Your task to perform on an android device: toggle airplane mode Image 0: 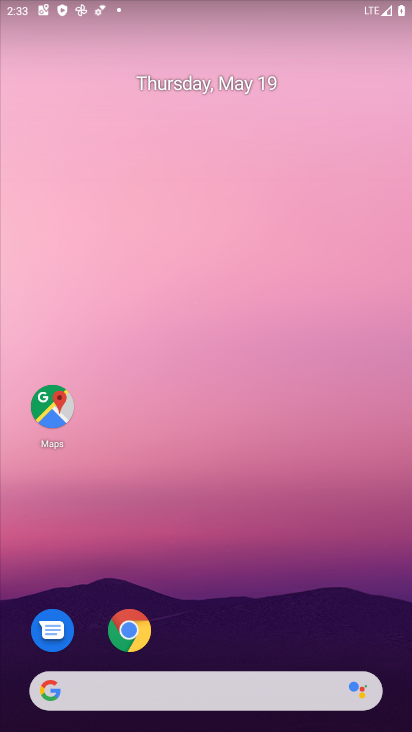
Step 0: drag from (376, 585) to (314, 87)
Your task to perform on an android device: toggle airplane mode Image 1: 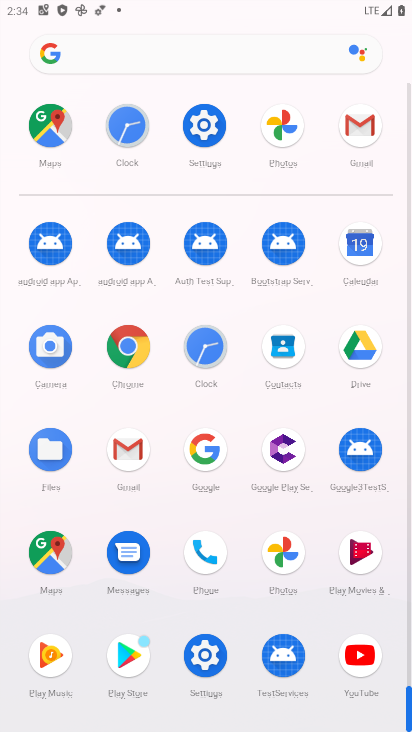
Step 1: click (205, 653)
Your task to perform on an android device: toggle airplane mode Image 2: 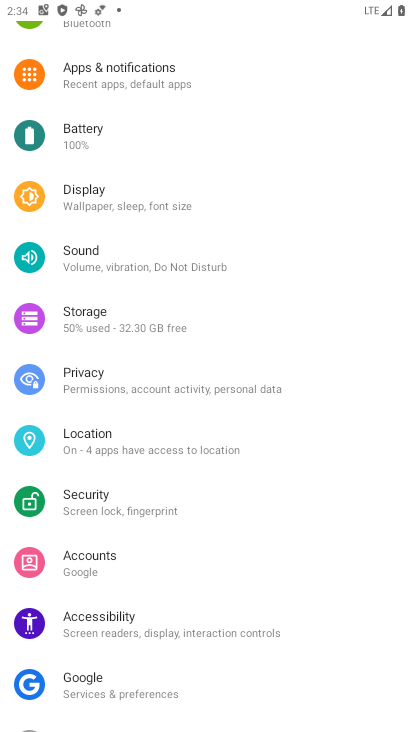
Step 2: drag from (330, 111) to (333, 467)
Your task to perform on an android device: toggle airplane mode Image 3: 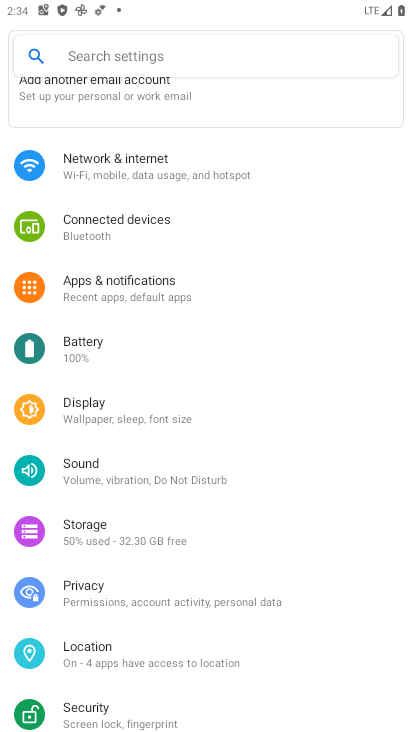
Step 3: click (98, 157)
Your task to perform on an android device: toggle airplane mode Image 4: 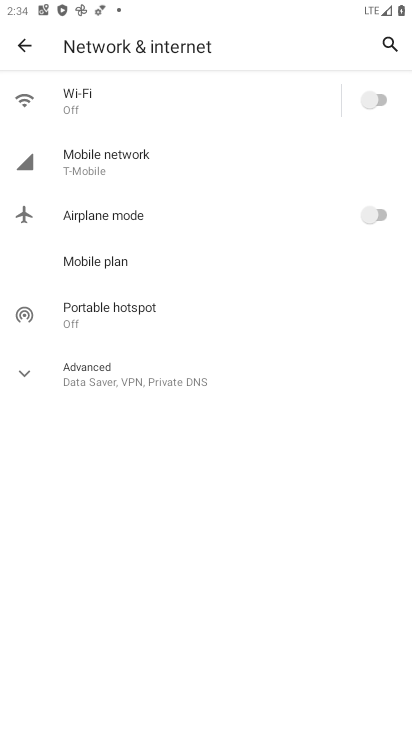
Step 4: click (383, 216)
Your task to perform on an android device: toggle airplane mode Image 5: 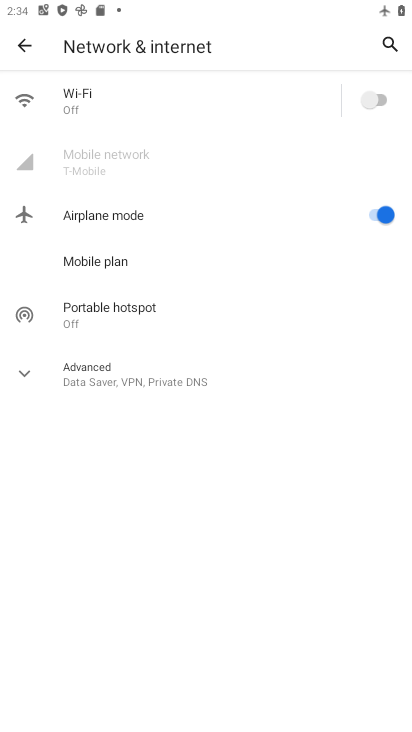
Step 5: task complete